Your task to perform on an android device: clear all cookies in the chrome app Image 0: 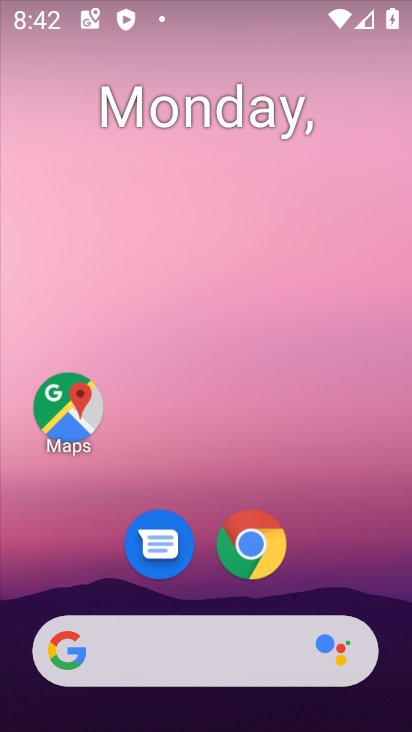
Step 0: click (244, 535)
Your task to perform on an android device: clear all cookies in the chrome app Image 1: 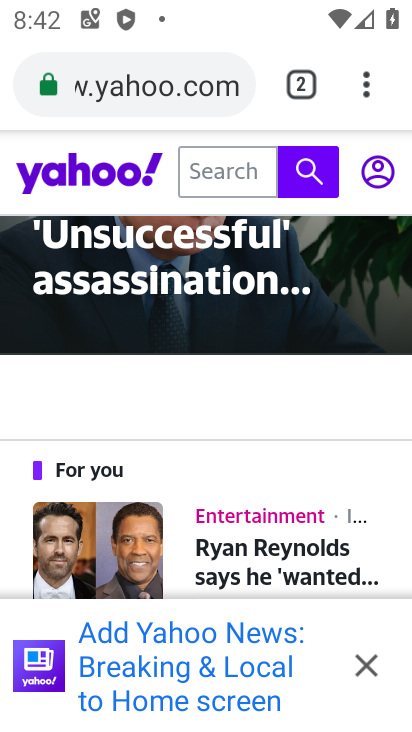
Step 1: click (366, 80)
Your task to perform on an android device: clear all cookies in the chrome app Image 2: 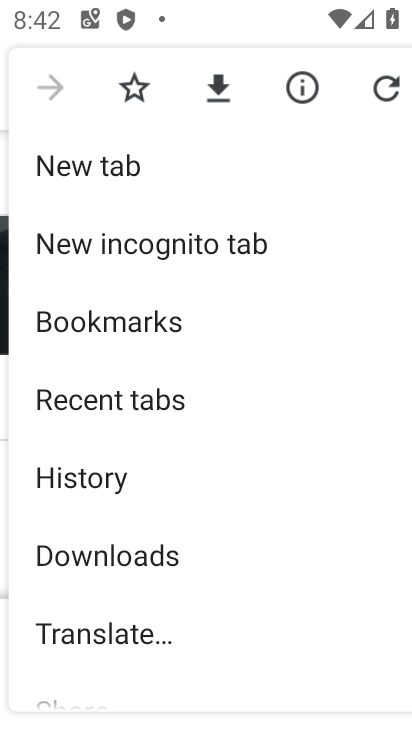
Step 2: drag from (246, 522) to (197, 155)
Your task to perform on an android device: clear all cookies in the chrome app Image 3: 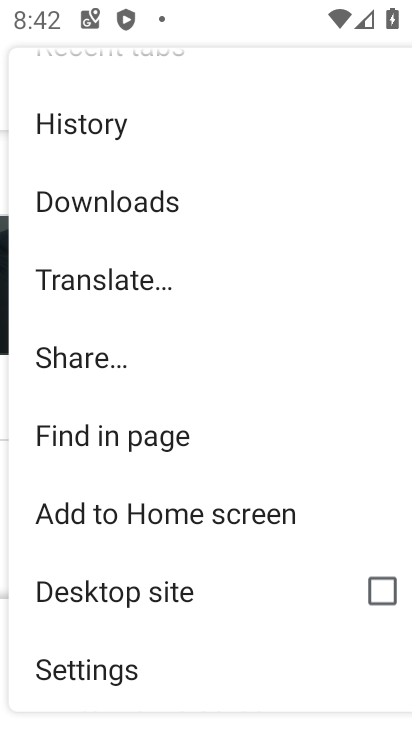
Step 3: click (86, 663)
Your task to perform on an android device: clear all cookies in the chrome app Image 4: 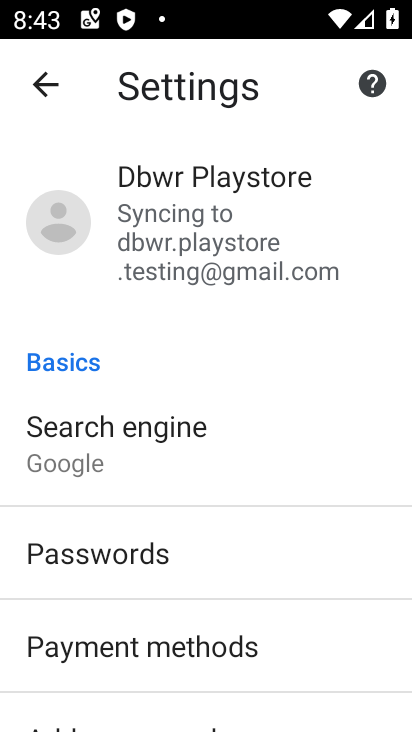
Step 4: drag from (243, 589) to (220, 137)
Your task to perform on an android device: clear all cookies in the chrome app Image 5: 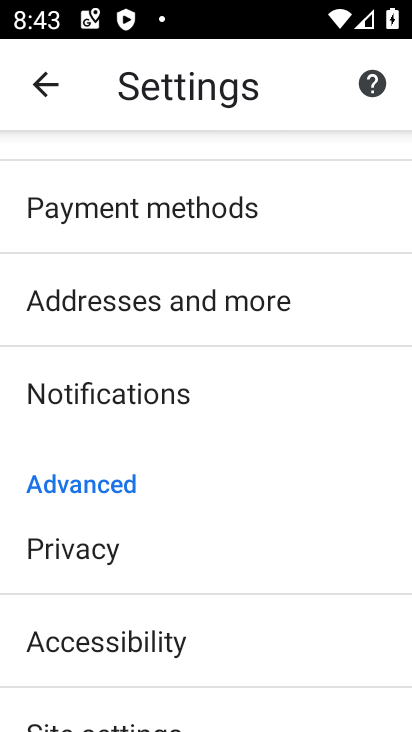
Step 5: drag from (246, 575) to (248, 236)
Your task to perform on an android device: clear all cookies in the chrome app Image 6: 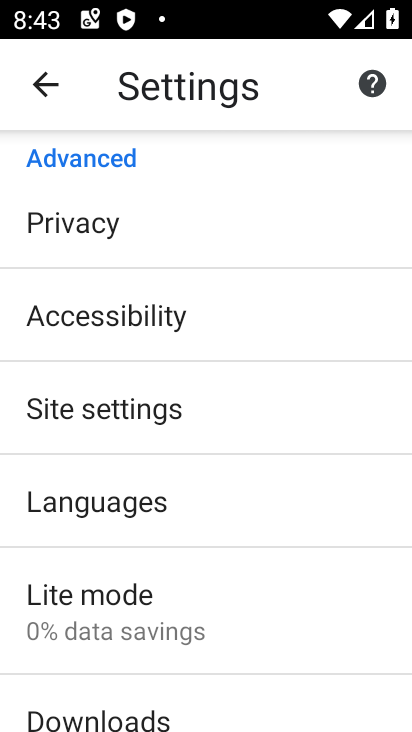
Step 6: drag from (285, 609) to (289, 302)
Your task to perform on an android device: clear all cookies in the chrome app Image 7: 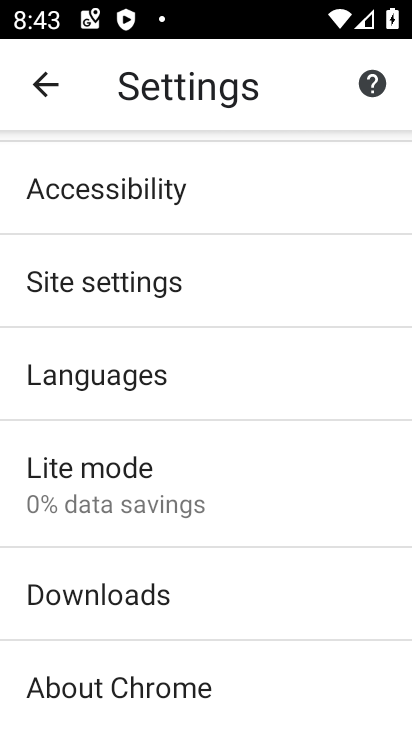
Step 7: drag from (275, 253) to (262, 590)
Your task to perform on an android device: clear all cookies in the chrome app Image 8: 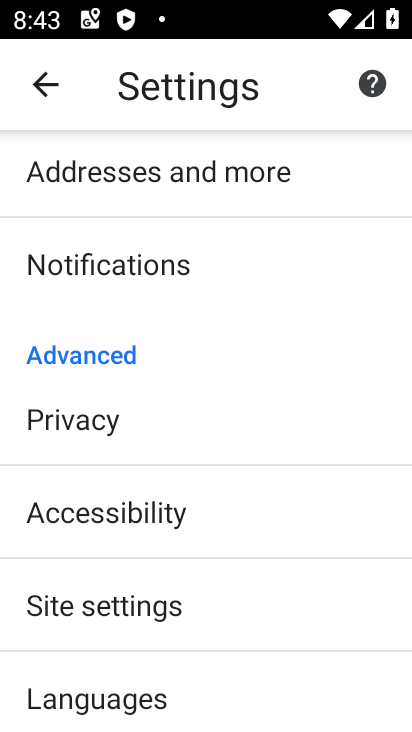
Step 8: click (90, 423)
Your task to perform on an android device: clear all cookies in the chrome app Image 9: 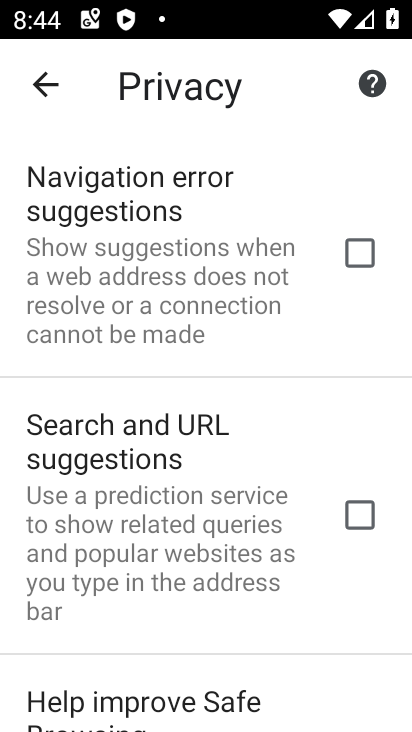
Step 9: drag from (209, 583) to (119, 88)
Your task to perform on an android device: clear all cookies in the chrome app Image 10: 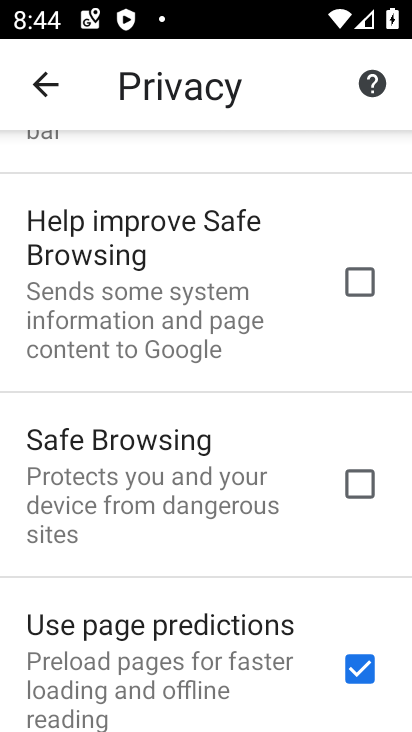
Step 10: drag from (193, 529) to (117, 82)
Your task to perform on an android device: clear all cookies in the chrome app Image 11: 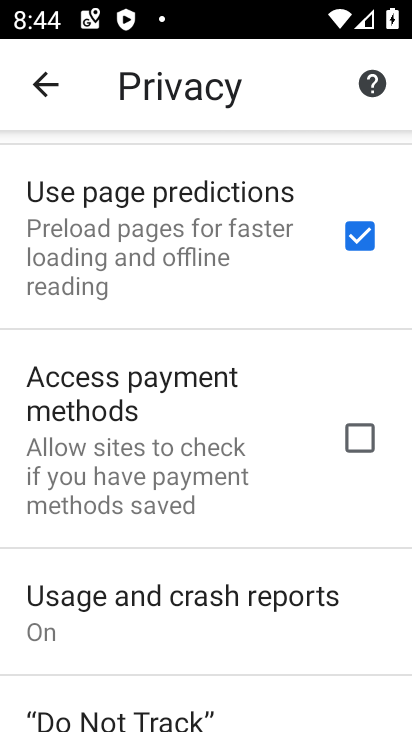
Step 11: drag from (235, 527) to (165, 3)
Your task to perform on an android device: clear all cookies in the chrome app Image 12: 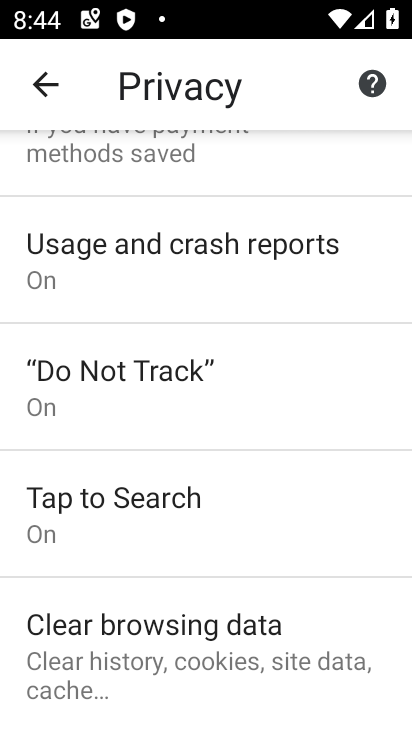
Step 12: drag from (214, 540) to (198, 216)
Your task to perform on an android device: clear all cookies in the chrome app Image 13: 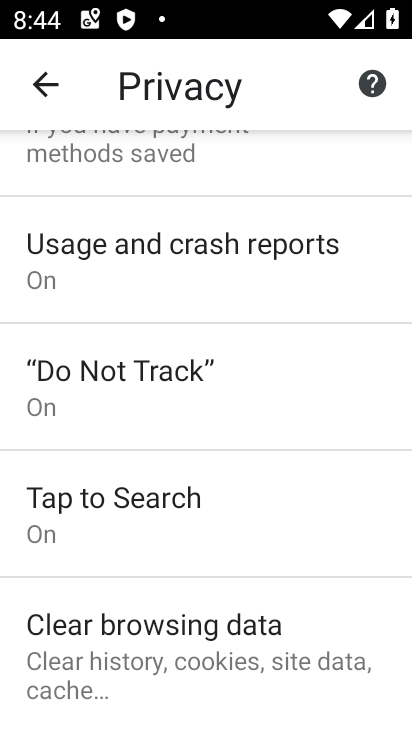
Step 13: click (140, 628)
Your task to perform on an android device: clear all cookies in the chrome app Image 14: 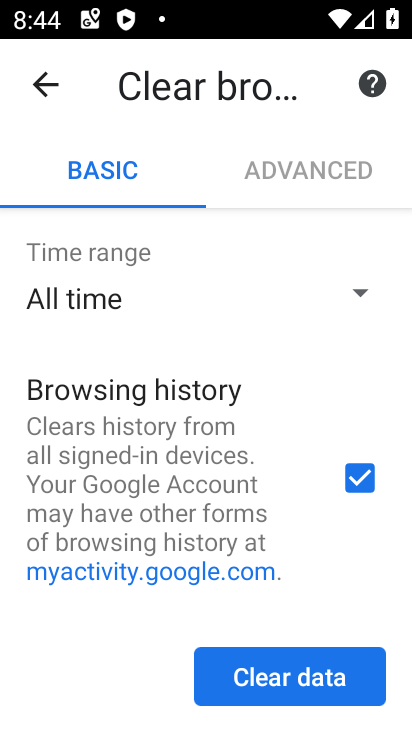
Step 14: click (370, 470)
Your task to perform on an android device: clear all cookies in the chrome app Image 15: 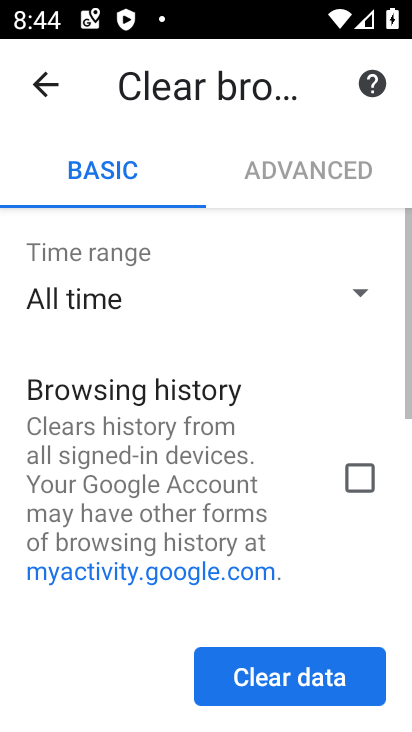
Step 15: drag from (294, 481) to (233, 90)
Your task to perform on an android device: clear all cookies in the chrome app Image 16: 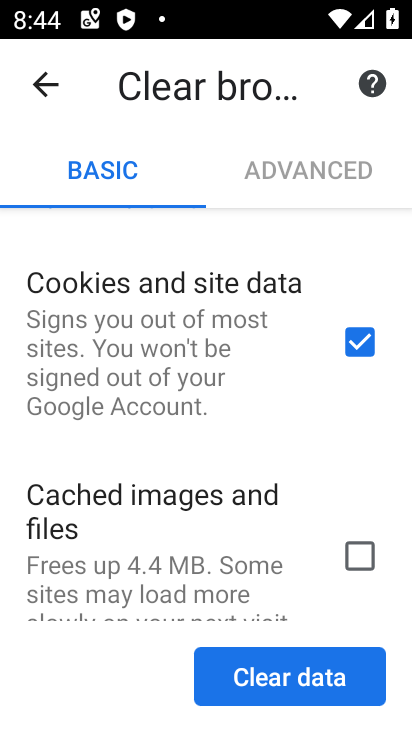
Step 16: click (268, 688)
Your task to perform on an android device: clear all cookies in the chrome app Image 17: 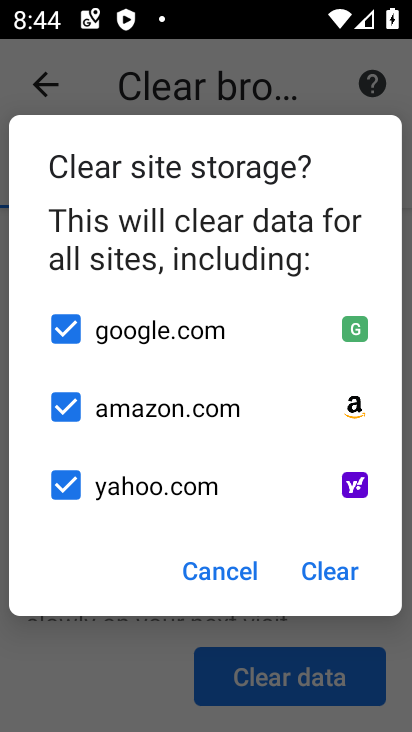
Step 17: click (332, 574)
Your task to perform on an android device: clear all cookies in the chrome app Image 18: 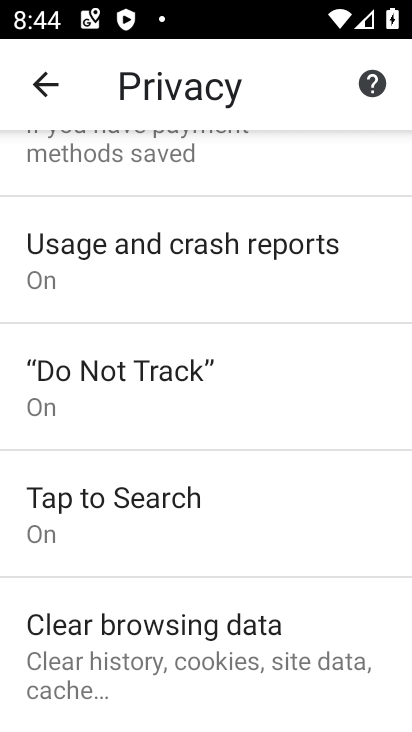
Step 18: task complete